Your task to perform on an android device: Open calendar and show me the first week of next month Image 0: 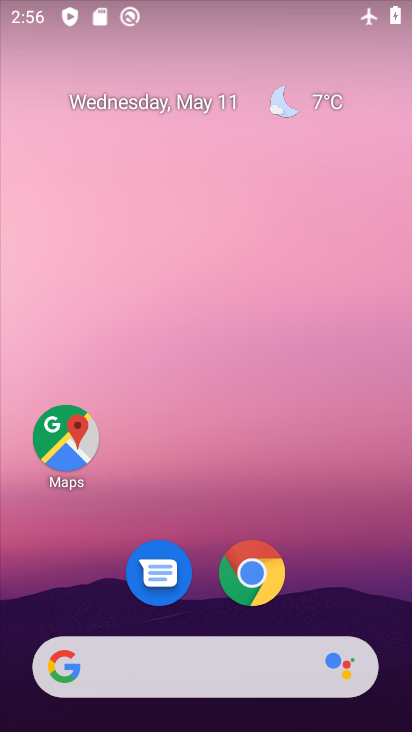
Step 0: drag from (226, 652) to (208, 255)
Your task to perform on an android device: Open calendar and show me the first week of next month Image 1: 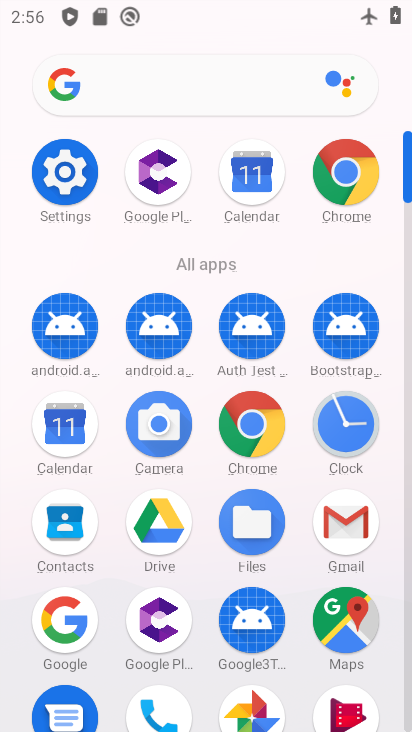
Step 1: click (255, 176)
Your task to perform on an android device: Open calendar and show me the first week of next month Image 2: 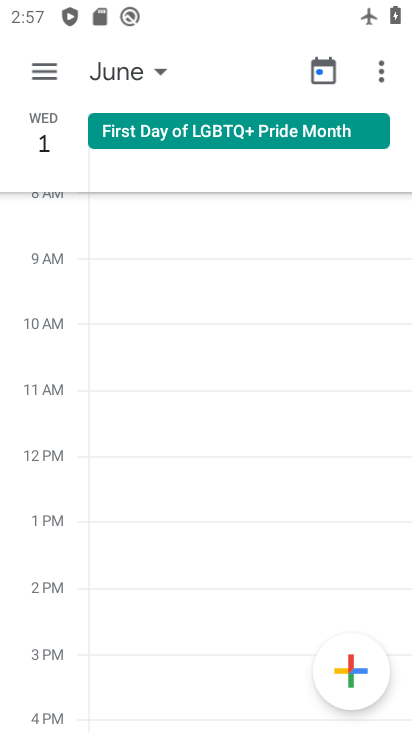
Step 2: click (42, 60)
Your task to perform on an android device: Open calendar and show me the first week of next month Image 3: 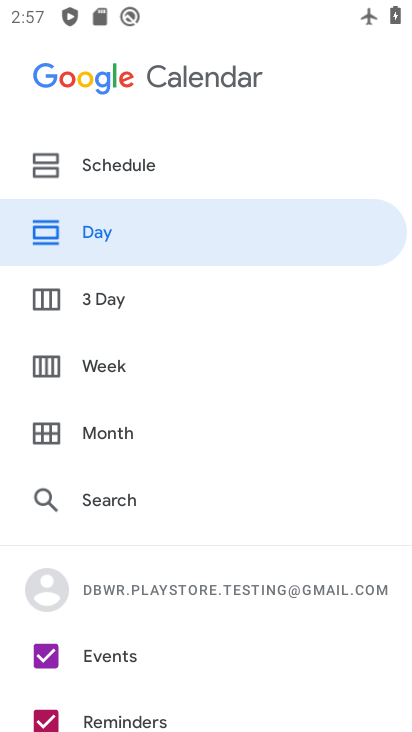
Step 3: click (124, 357)
Your task to perform on an android device: Open calendar and show me the first week of next month Image 4: 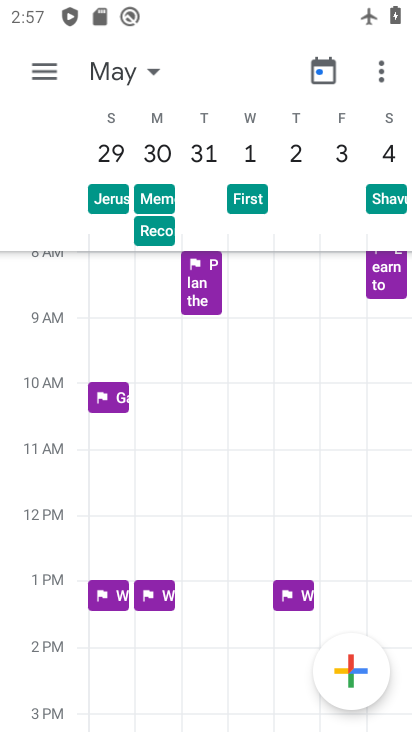
Step 4: task complete